Your task to perform on an android device: What's the weather today? Image 0: 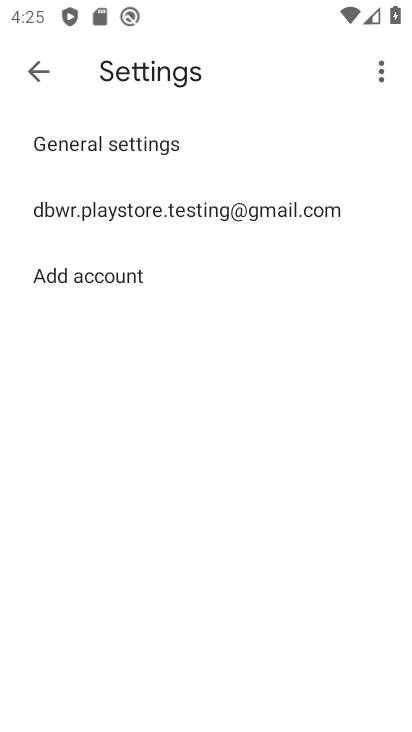
Step 0: press home button
Your task to perform on an android device: What's the weather today? Image 1: 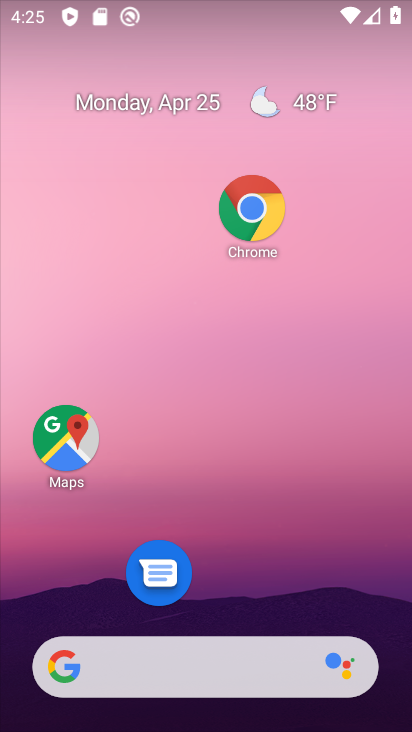
Step 1: drag from (234, 585) to (170, 153)
Your task to perform on an android device: What's the weather today? Image 2: 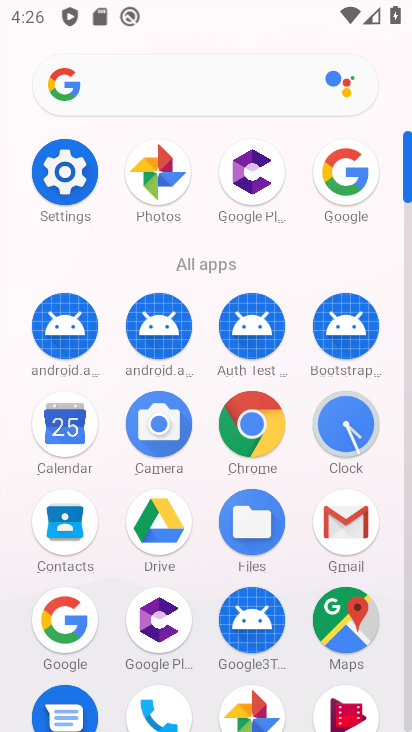
Step 2: click (69, 607)
Your task to perform on an android device: What's the weather today? Image 3: 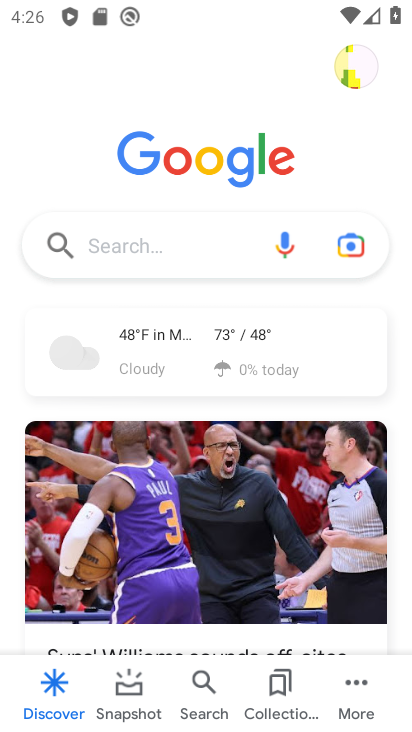
Step 3: click (143, 342)
Your task to perform on an android device: What's the weather today? Image 4: 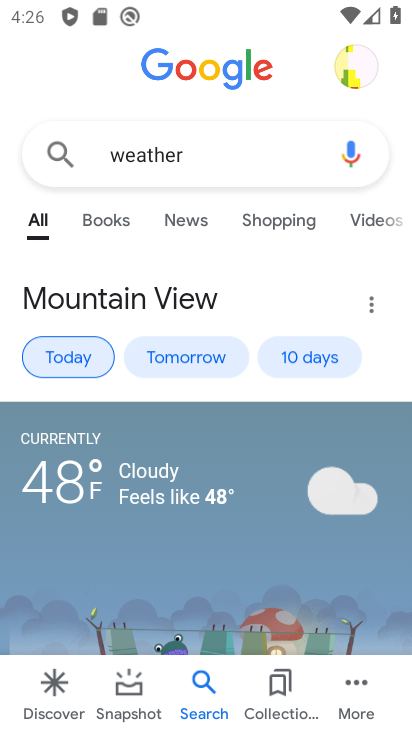
Step 4: task complete